Your task to perform on an android device: see tabs open on other devices in the chrome app Image 0: 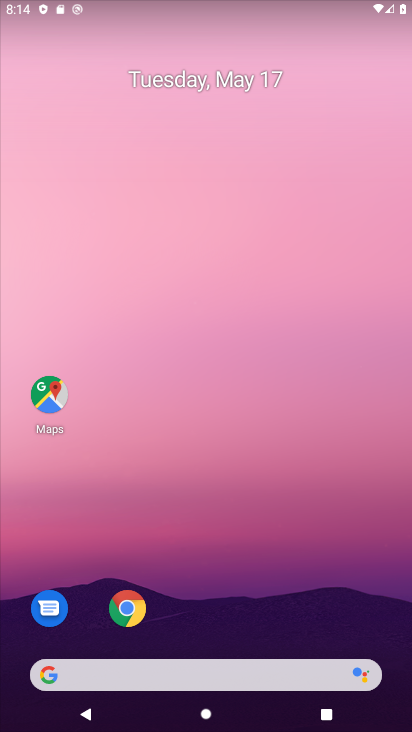
Step 0: drag from (340, 596) to (364, 200)
Your task to perform on an android device: see tabs open on other devices in the chrome app Image 1: 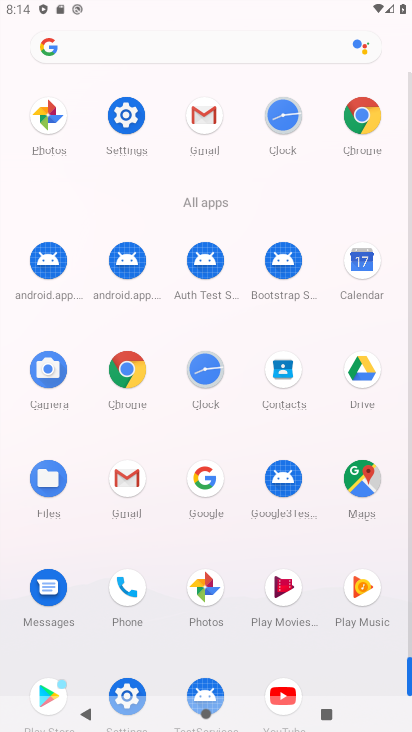
Step 1: click (130, 379)
Your task to perform on an android device: see tabs open on other devices in the chrome app Image 2: 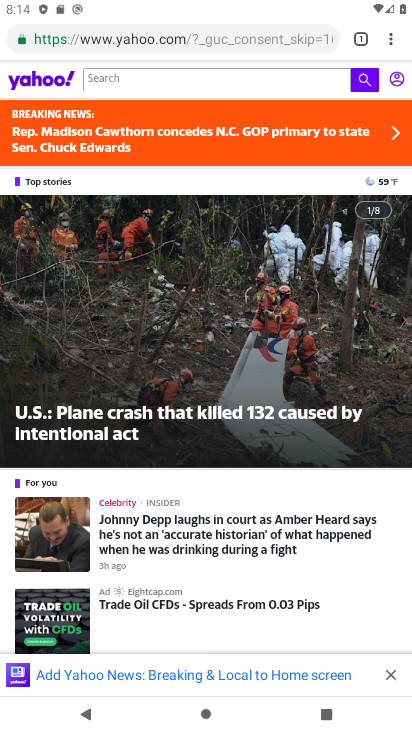
Step 2: click (392, 43)
Your task to perform on an android device: see tabs open on other devices in the chrome app Image 3: 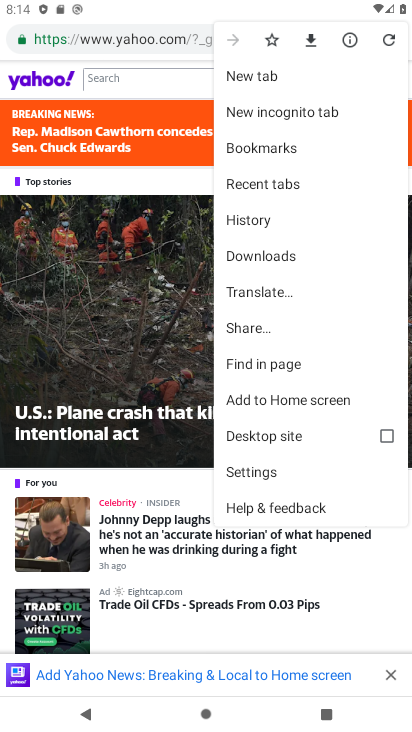
Step 3: drag from (335, 469) to (339, 327)
Your task to perform on an android device: see tabs open on other devices in the chrome app Image 4: 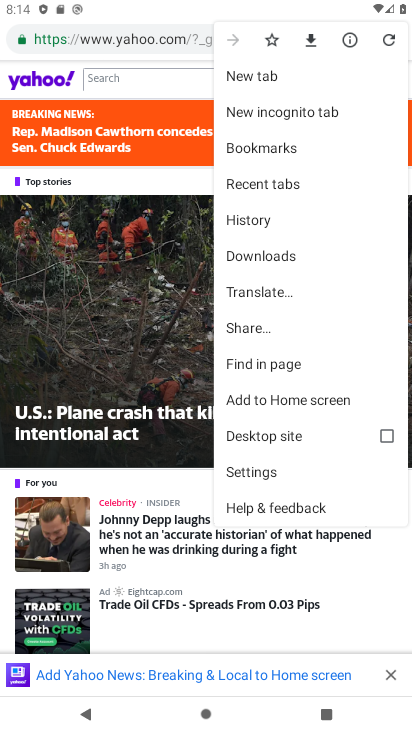
Step 4: click (289, 187)
Your task to perform on an android device: see tabs open on other devices in the chrome app Image 5: 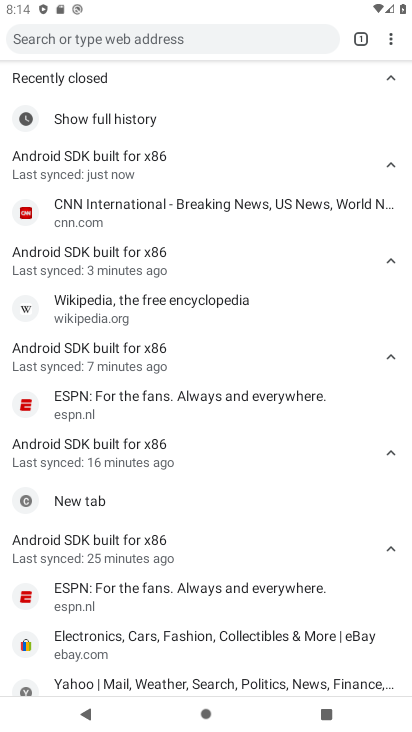
Step 5: click (355, 38)
Your task to perform on an android device: see tabs open on other devices in the chrome app Image 6: 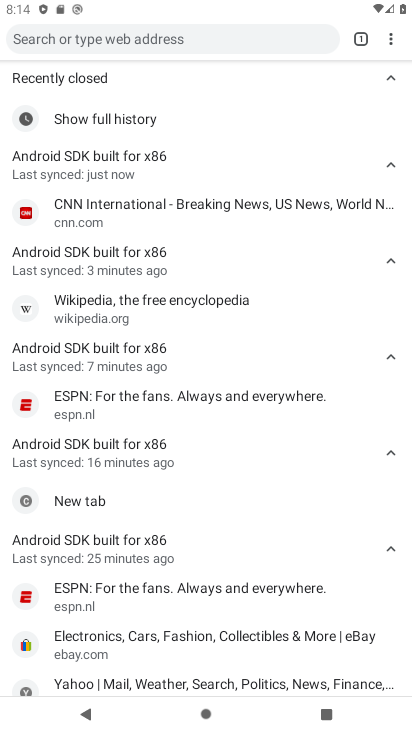
Step 6: click (360, 35)
Your task to perform on an android device: see tabs open on other devices in the chrome app Image 7: 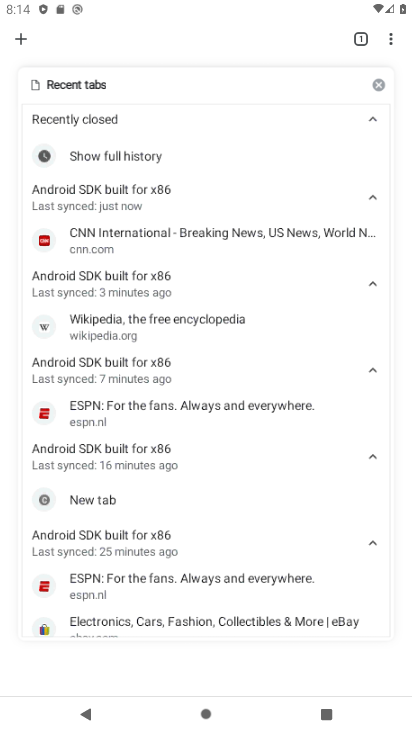
Step 7: task complete